Your task to perform on an android device: make emails show in primary in the gmail app Image 0: 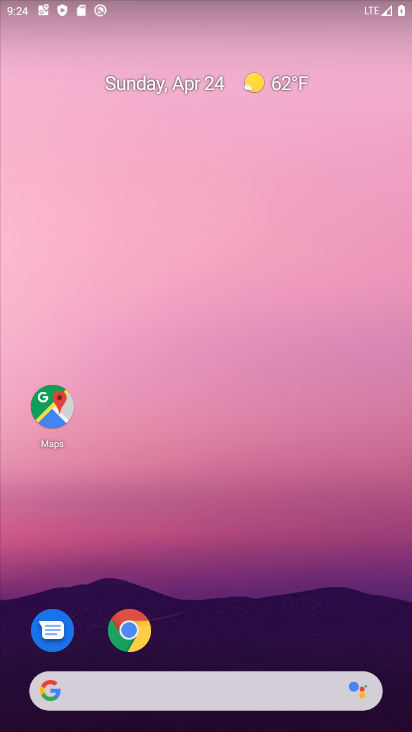
Step 0: drag from (298, 568) to (310, 21)
Your task to perform on an android device: make emails show in primary in the gmail app Image 1: 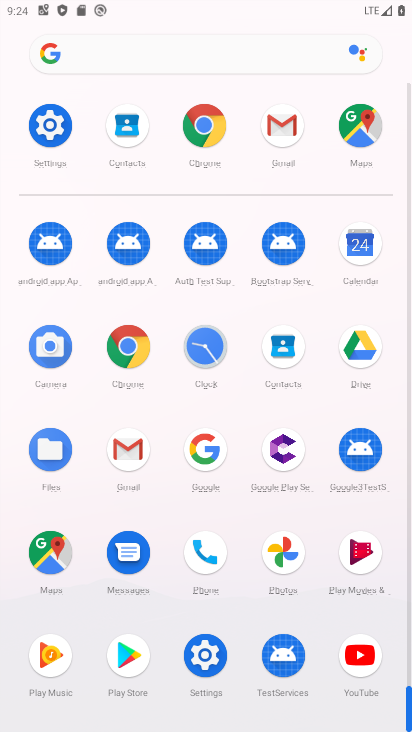
Step 1: drag from (16, 600) to (32, 293)
Your task to perform on an android device: make emails show in primary in the gmail app Image 2: 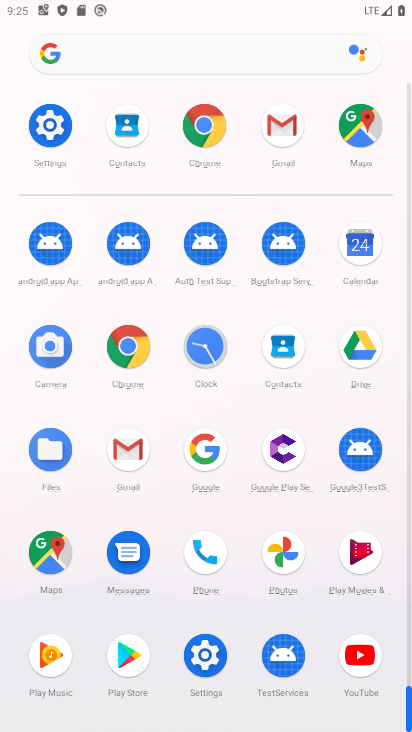
Step 2: click (125, 444)
Your task to perform on an android device: make emails show in primary in the gmail app Image 3: 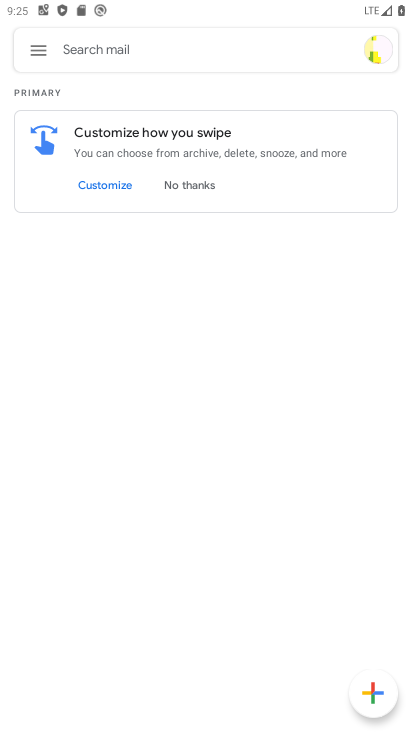
Step 3: click (31, 61)
Your task to perform on an android device: make emails show in primary in the gmail app Image 4: 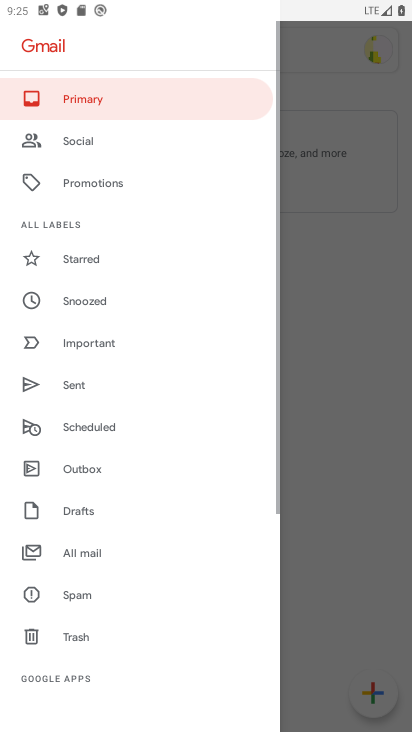
Step 4: drag from (197, 598) to (224, 106)
Your task to perform on an android device: make emails show in primary in the gmail app Image 5: 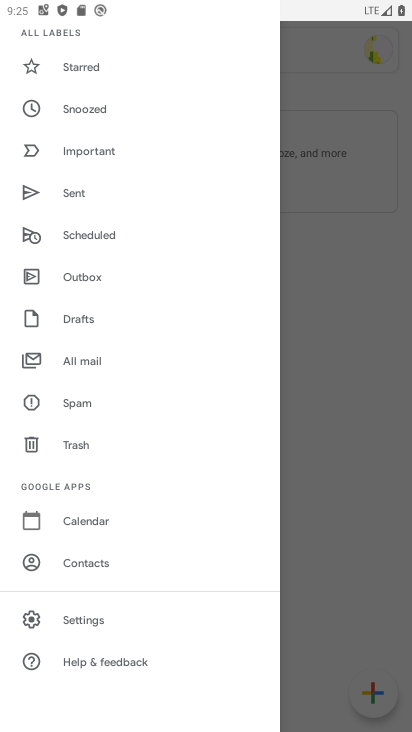
Step 5: click (107, 615)
Your task to perform on an android device: make emails show in primary in the gmail app Image 6: 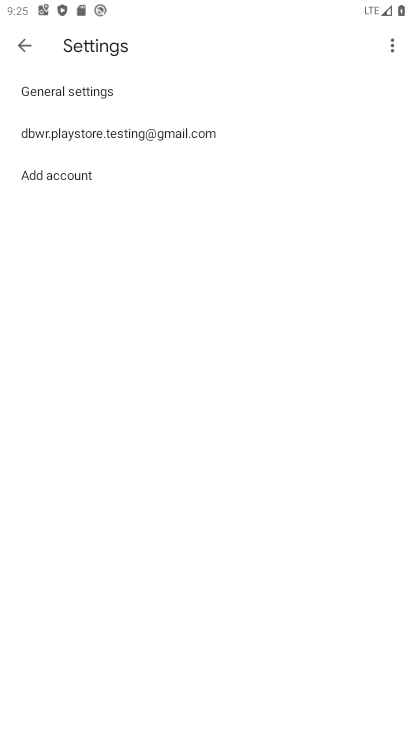
Step 6: click (112, 135)
Your task to perform on an android device: make emails show in primary in the gmail app Image 7: 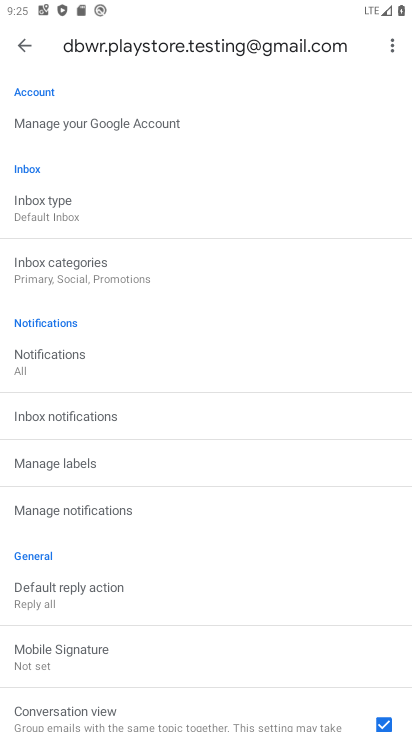
Step 7: click (113, 266)
Your task to perform on an android device: make emails show in primary in the gmail app Image 8: 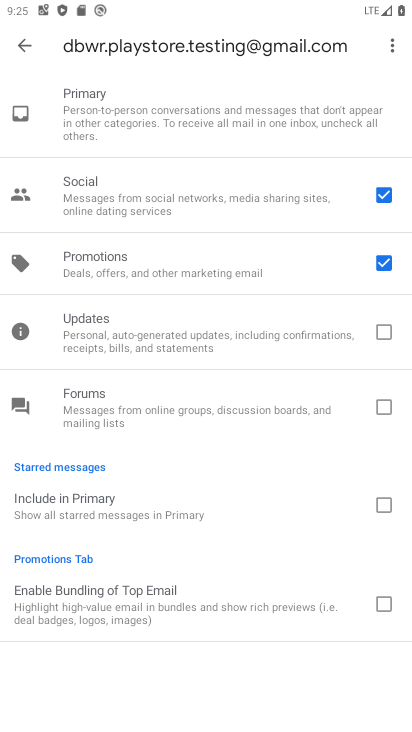
Step 8: click (384, 256)
Your task to perform on an android device: make emails show in primary in the gmail app Image 9: 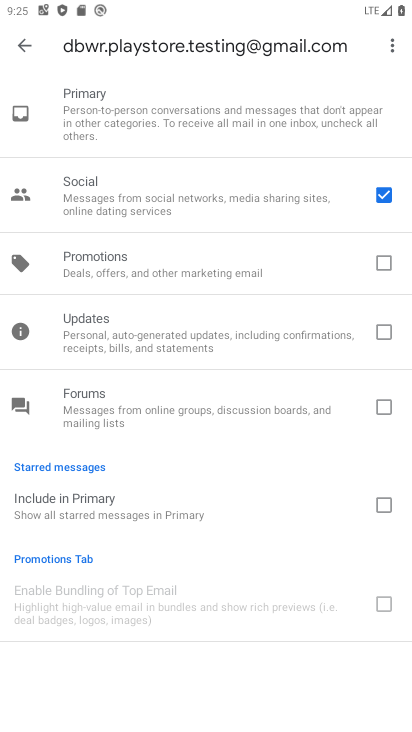
Step 9: click (382, 190)
Your task to perform on an android device: make emails show in primary in the gmail app Image 10: 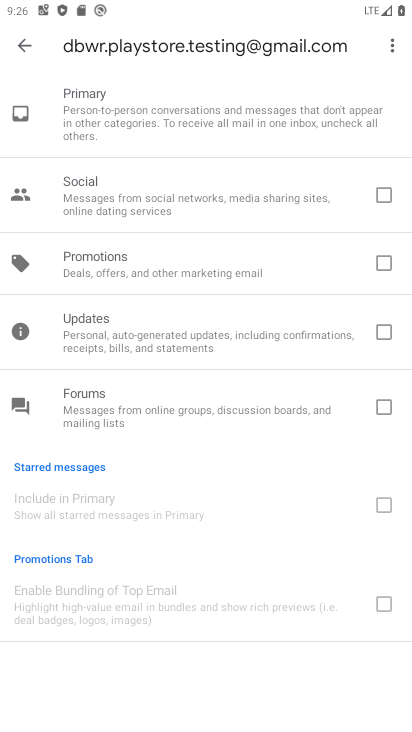
Step 10: task complete